Your task to perform on an android device: check the backup settings in the google photos Image 0: 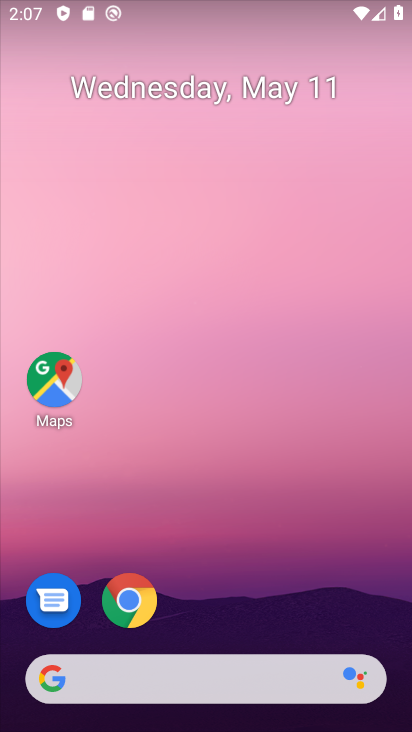
Step 0: drag from (191, 553) to (259, 99)
Your task to perform on an android device: check the backup settings in the google photos Image 1: 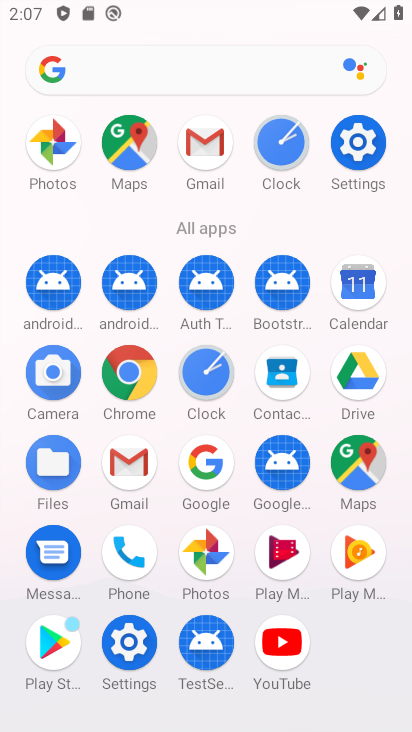
Step 1: click (63, 159)
Your task to perform on an android device: check the backup settings in the google photos Image 2: 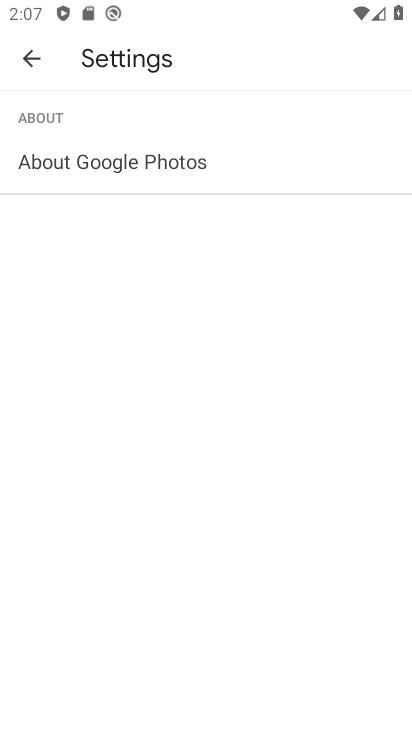
Step 2: click (40, 63)
Your task to perform on an android device: check the backup settings in the google photos Image 3: 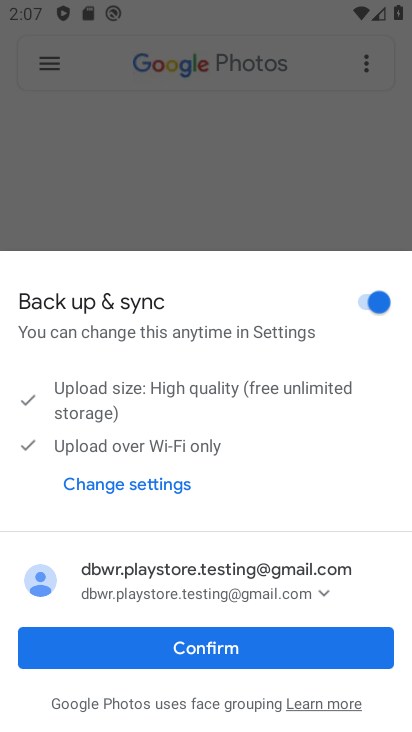
Step 3: click (189, 656)
Your task to perform on an android device: check the backup settings in the google photos Image 4: 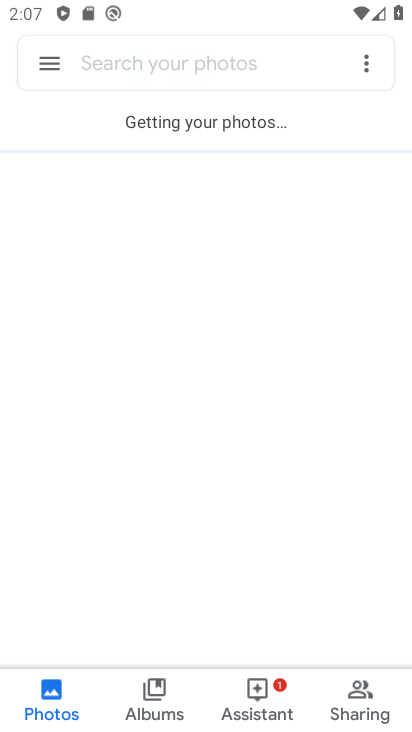
Step 4: click (50, 67)
Your task to perform on an android device: check the backup settings in the google photos Image 5: 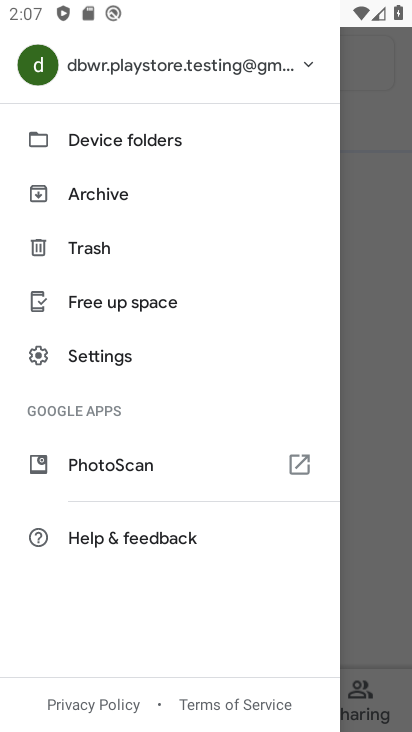
Step 5: click (100, 361)
Your task to perform on an android device: check the backup settings in the google photos Image 6: 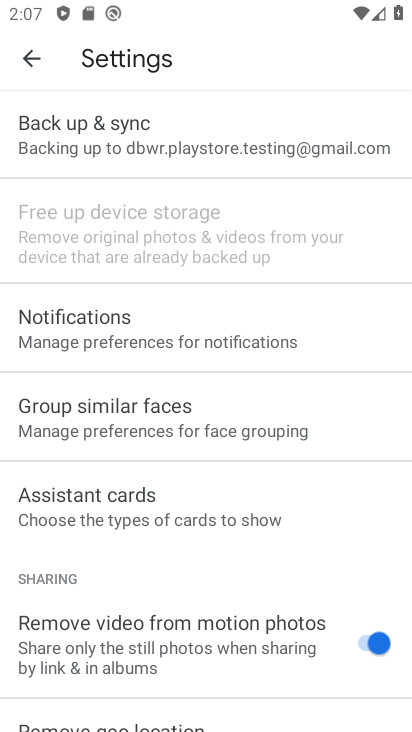
Step 6: click (161, 137)
Your task to perform on an android device: check the backup settings in the google photos Image 7: 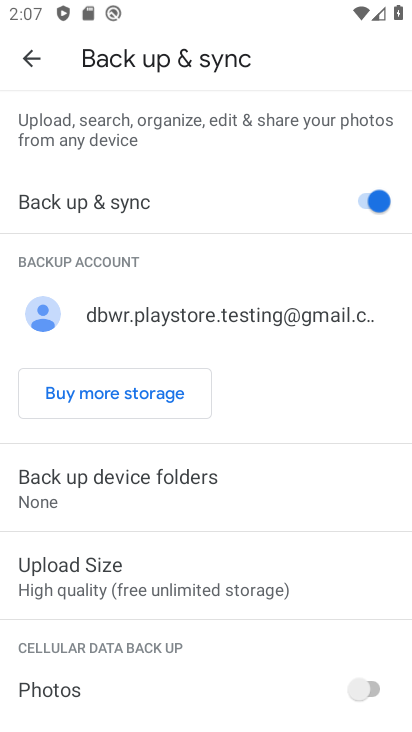
Step 7: task complete